Your task to perform on an android device: turn off picture-in-picture Image 0: 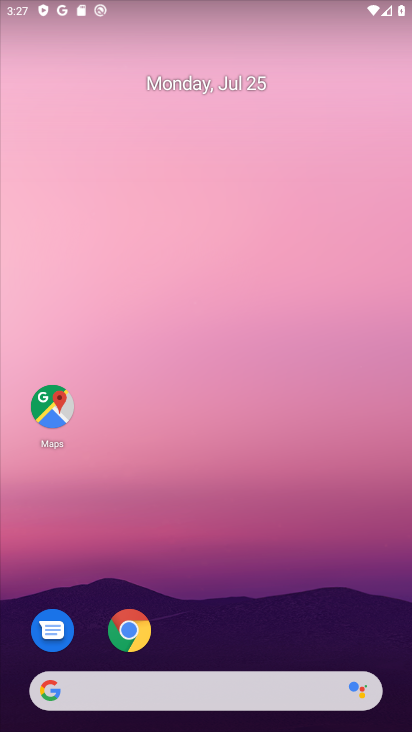
Step 0: click (128, 631)
Your task to perform on an android device: turn off picture-in-picture Image 1: 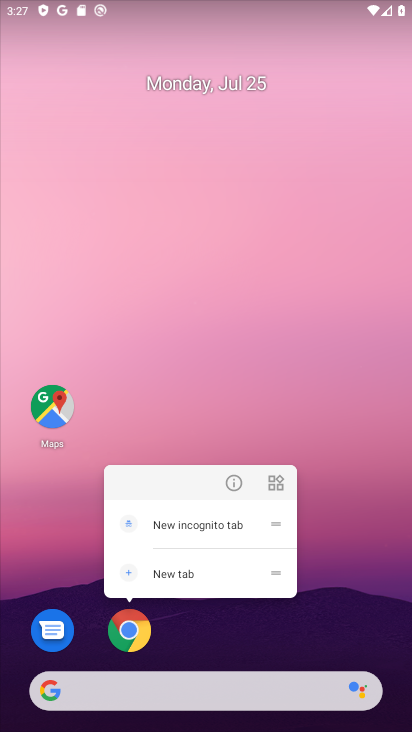
Step 1: click (234, 482)
Your task to perform on an android device: turn off picture-in-picture Image 2: 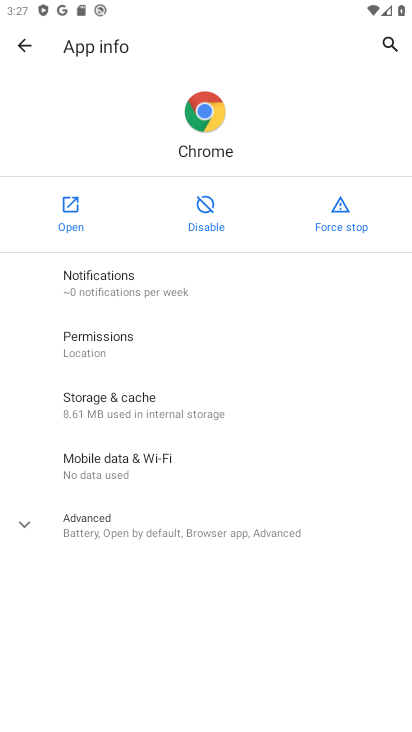
Step 2: click (146, 538)
Your task to perform on an android device: turn off picture-in-picture Image 3: 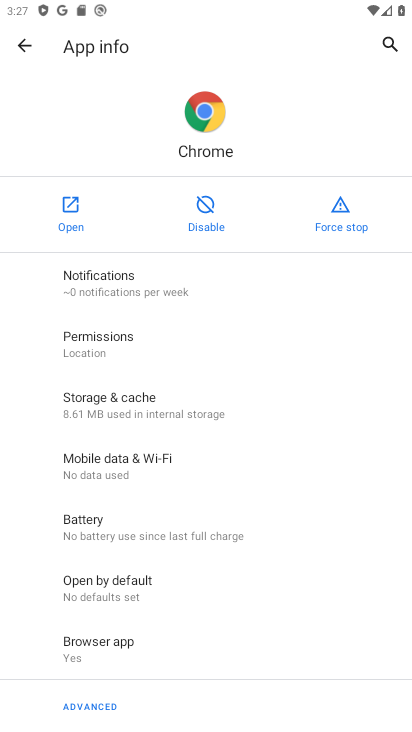
Step 3: drag from (141, 629) to (175, 517)
Your task to perform on an android device: turn off picture-in-picture Image 4: 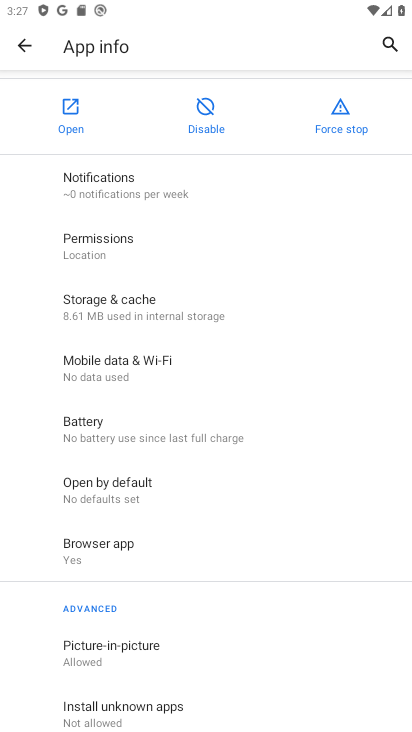
Step 4: click (142, 648)
Your task to perform on an android device: turn off picture-in-picture Image 5: 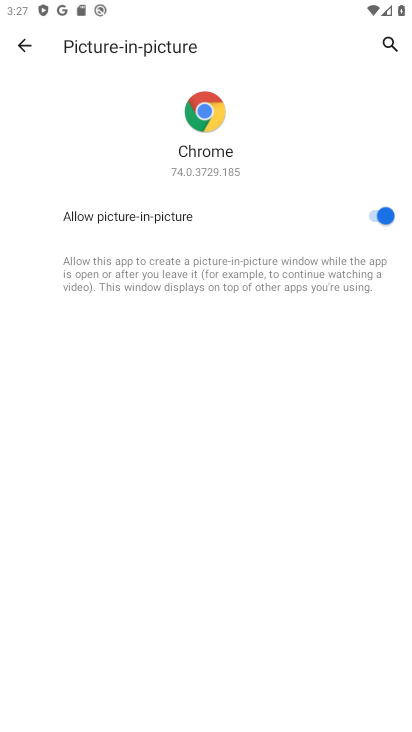
Step 5: click (365, 215)
Your task to perform on an android device: turn off picture-in-picture Image 6: 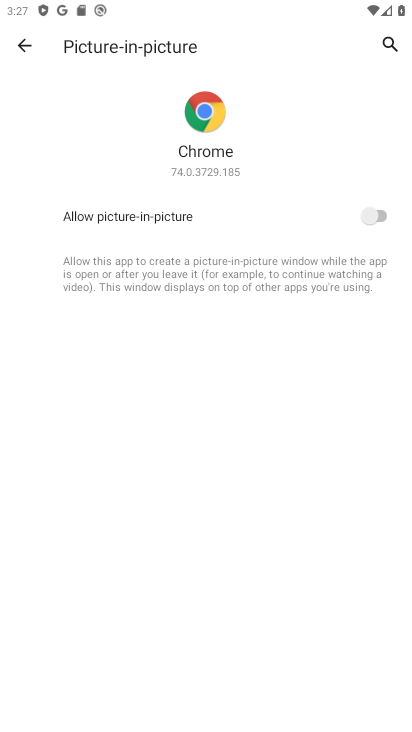
Step 6: task complete